Your task to perform on an android device: When is my next appointment? Image 0: 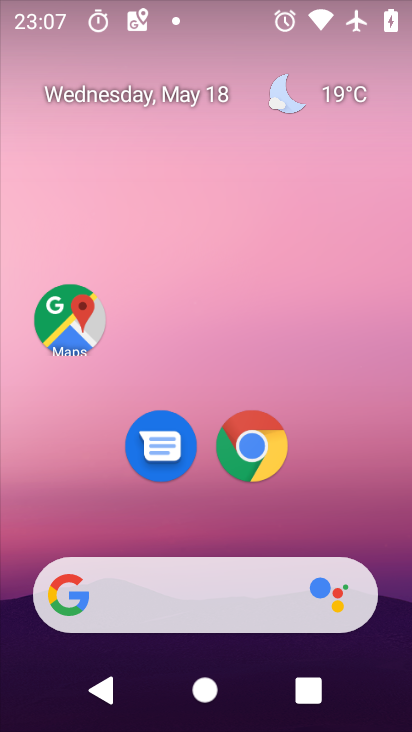
Step 0: press home button
Your task to perform on an android device: When is my next appointment? Image 1: 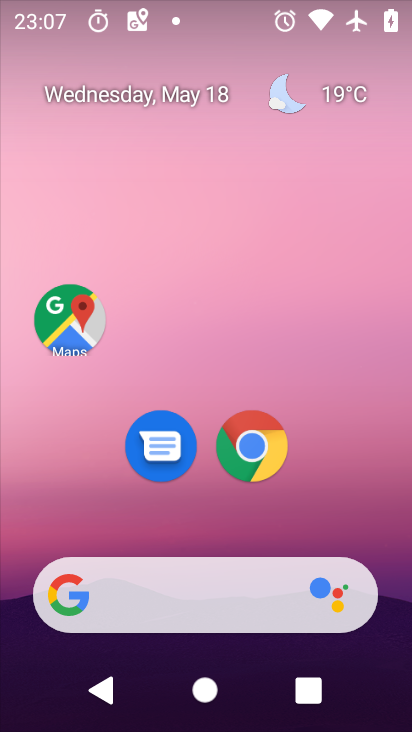
Step 1: drag from (140, 595) to (291, 212)
Your task to perform on an android device: When is my next appointment? Image 2: 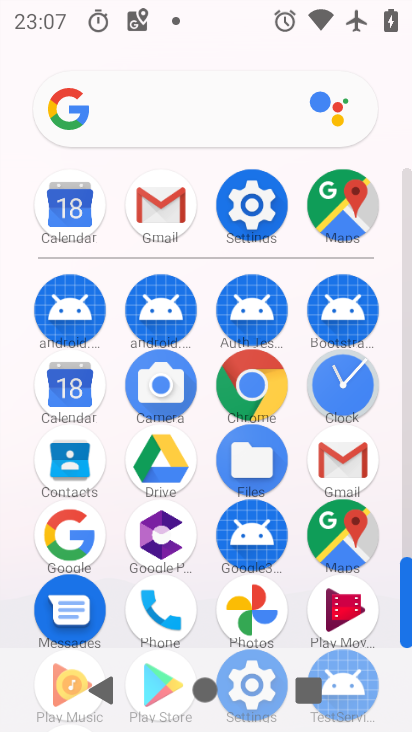
Step 2: click (84, 404)
Your task to perform on an android device: When is my next appointment? Image 3: 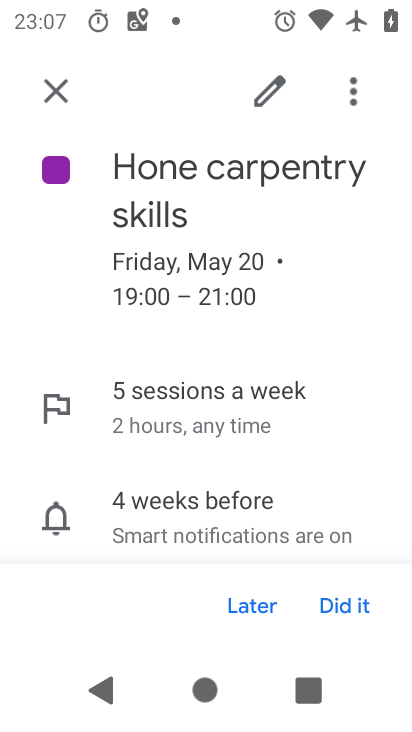
Step 3: task complete